Your task to perform on an android device: Open wifi settings Image 0: 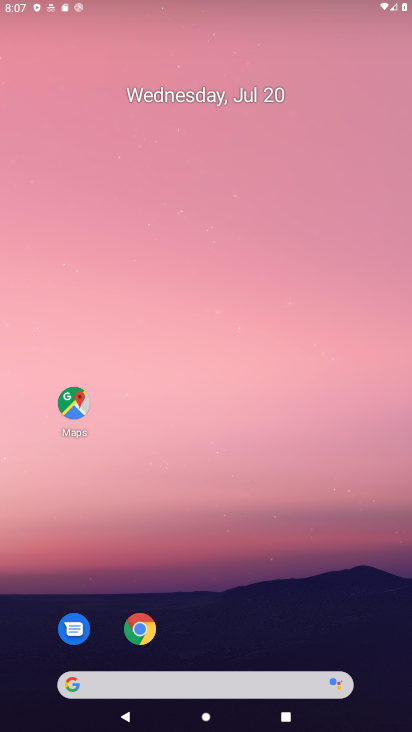
Step 0: drag from (275, 650) to (248, 265)
Your task to perform on an android device: Open wifi settings Image 1: 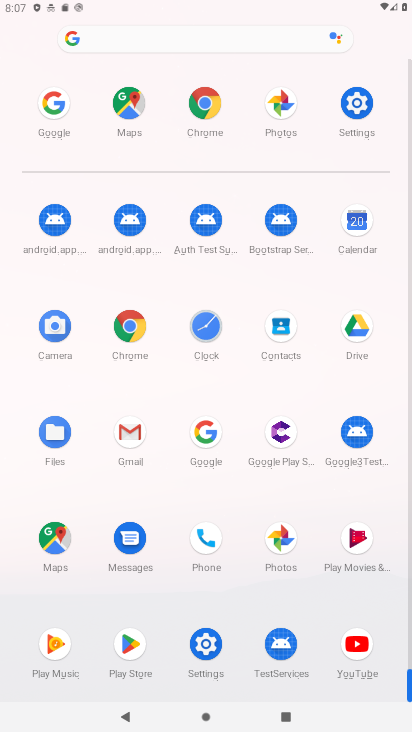
Step 1: click (360, 92)
Your task to perform on an android device: Open wifi settings Image 2: 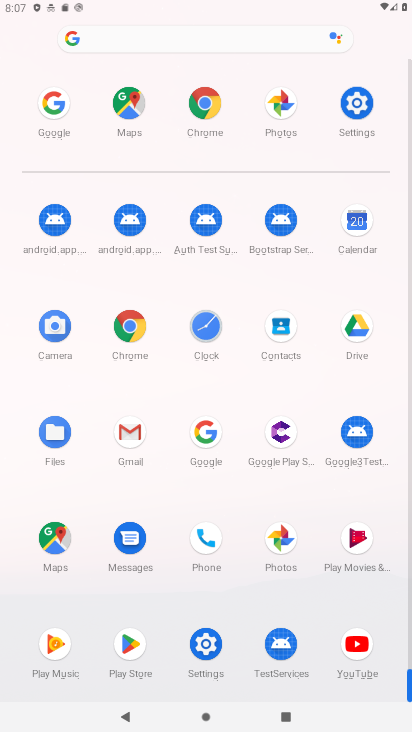
Step 2: click (360, 91)
Your task to perform on an android device: Open wifi settings Image 3: 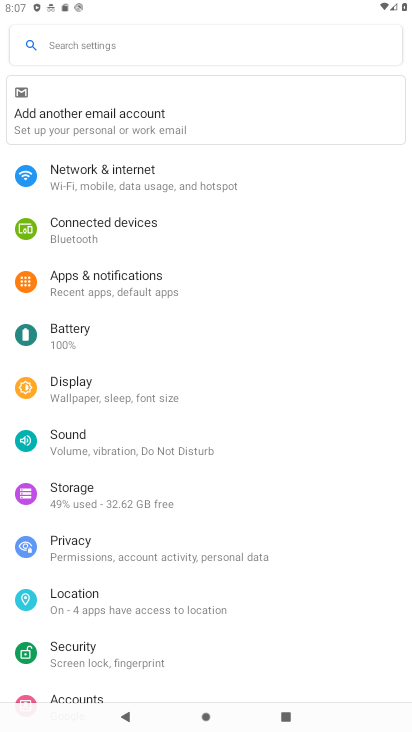
Step 3: click (116, 173)
Your task to perform on an android device: Open wifi settings Image 4: 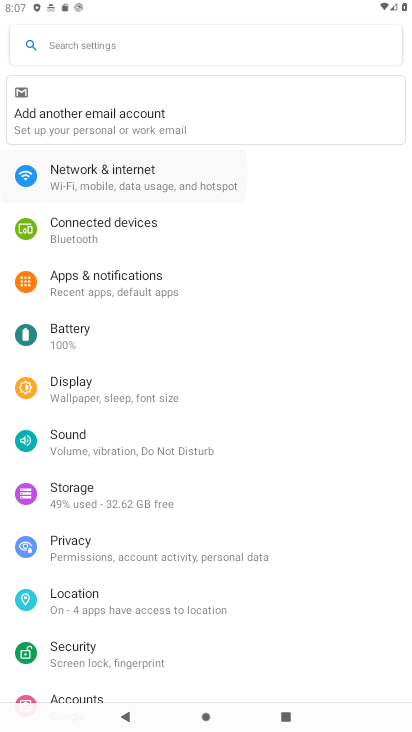
Step 4: click (116, 173)
Your task to perform on an android device: Open wifi settings Image 5: 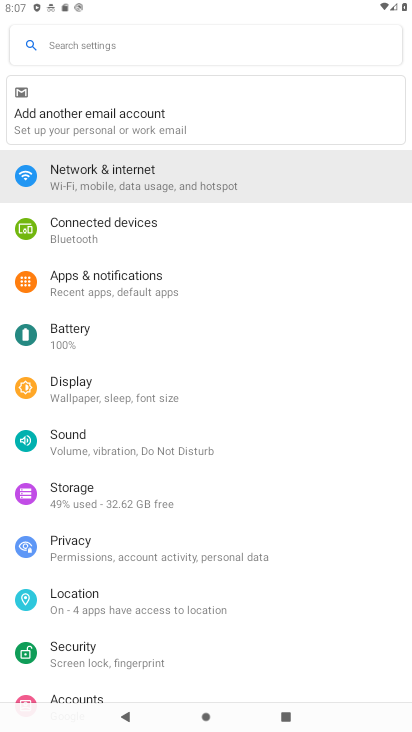
Step 5: click (116, 174)
Your task to perform on an android device: Open wifi settings Image 6: 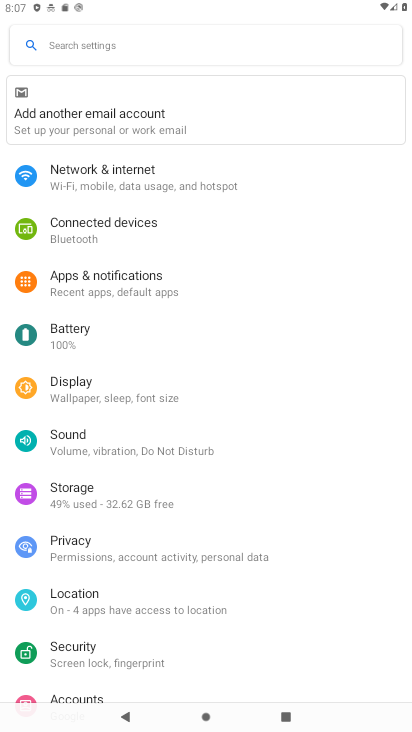
Step 6: click (116, 175)
Your task to perform on an android device: Open wifi settings Image 7: 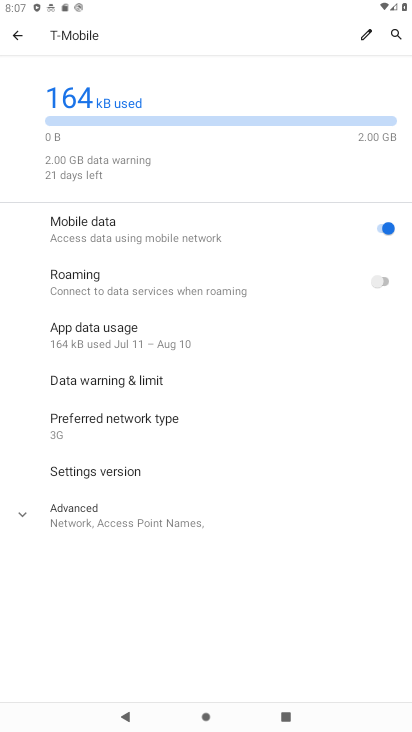
Step 7: click (17, 34)
Your task to perform on an android device: Open wifi settings Image 8: 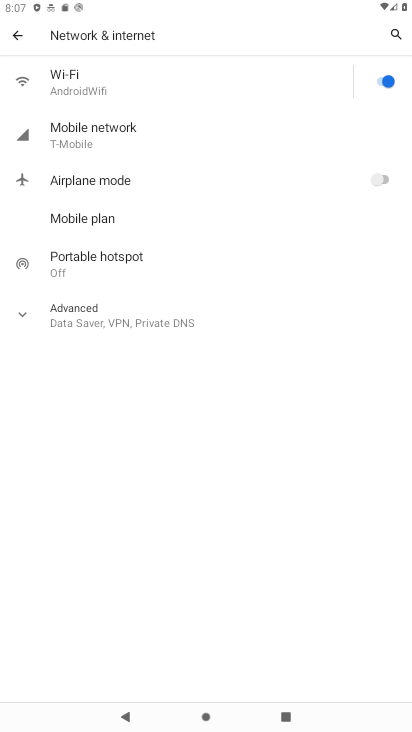
Step 8: task complete